Your task to perform on an android device: turn pop-ups on in chrome Image 0: 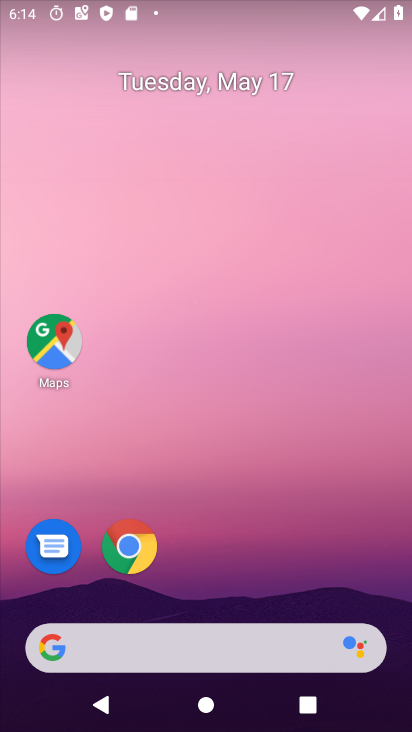
Step 0: click (123, 559)
Your task to perform on an android device: turn pop-ups on in chrome Image 1: 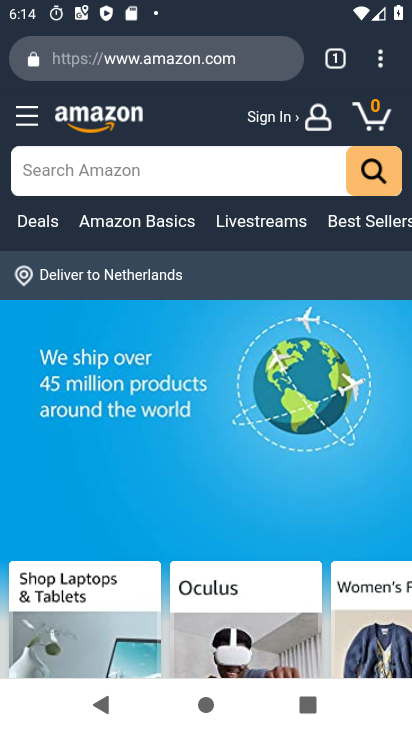
Step 1: click (379, 58)
Your task to perform on an android device: turn pop-ups on in chrome Image 2: 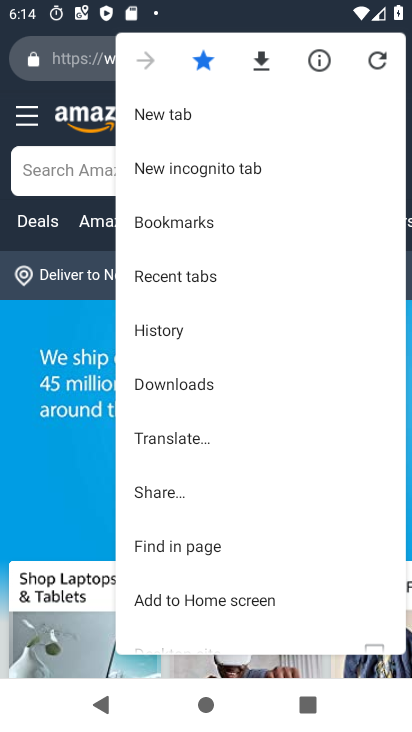
Step 2: drag from (256, 227) to (260, 28)
Your task to perform on an android device: turn pop-ups on in chrome Image 3: 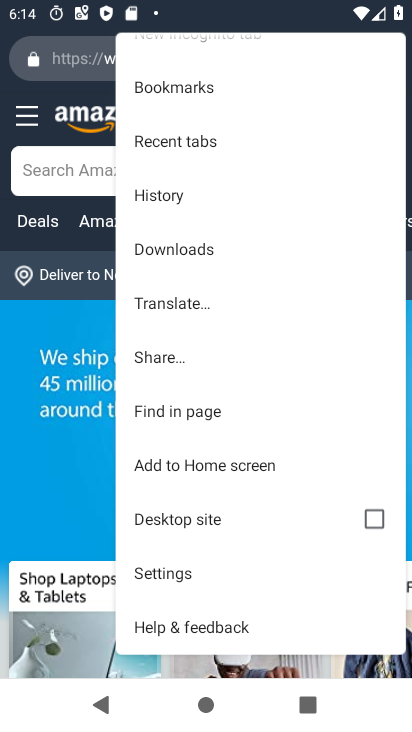
Step 3: click (194, 572)
Your task to perform on an android device: turn pop-ups on in chrome Image 4: 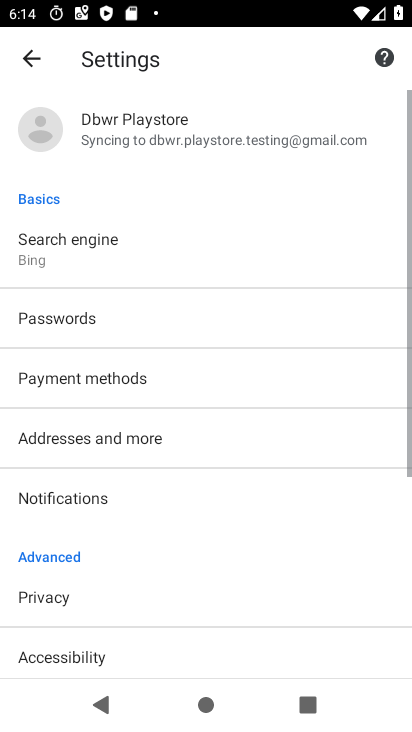
Step 4: drag from (194, 572) to (267, 20)
Your task to perform on an android device: turn pop-ups on in chrome Image 5: 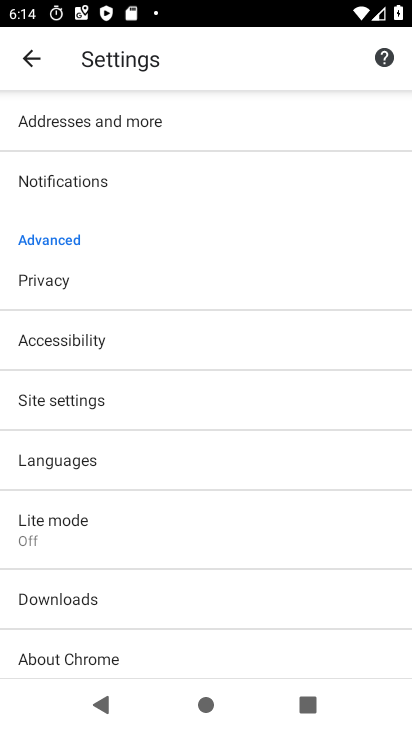
Step 5: click (90, 413)
Your task to perform on an android device: turn pop-ups on in chrome Image 6: 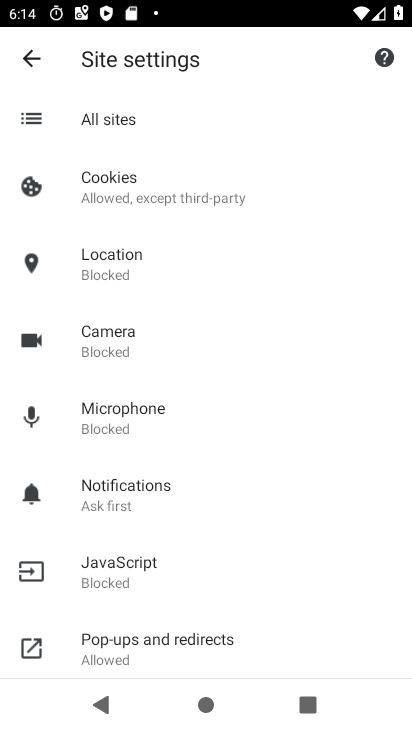
Step 6: click (105, 659)
Your task to perform on an android device: turn pop-ups on in chrome Image 7: 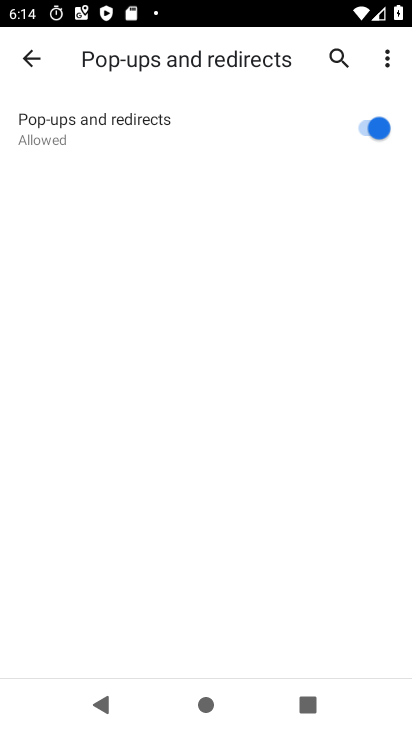
Step 7: task complete